Your task to perform on an android device: refresh tabs in the chrome app Image 0: 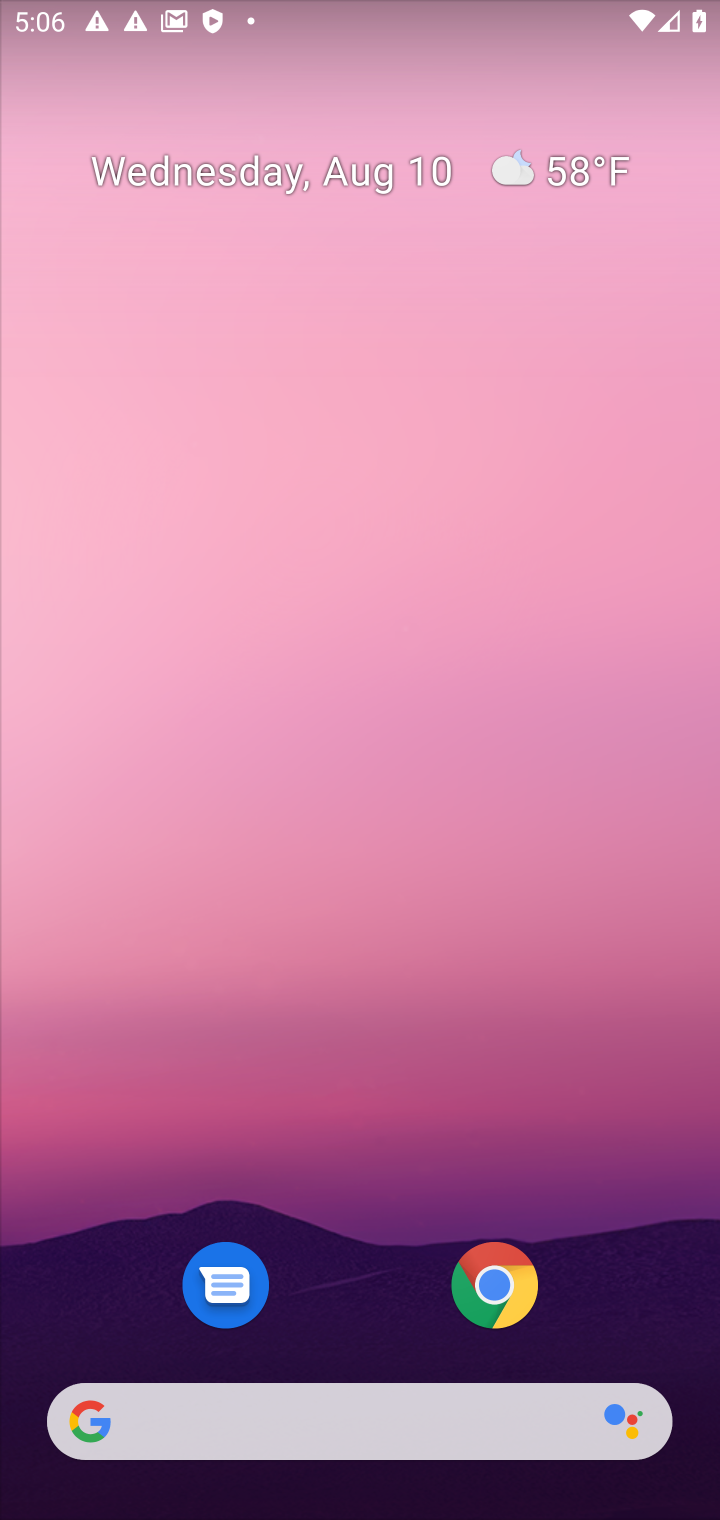
Step 0: press home button
Your task to perform on an android device: refresh tabs in the chrome app Image 1: 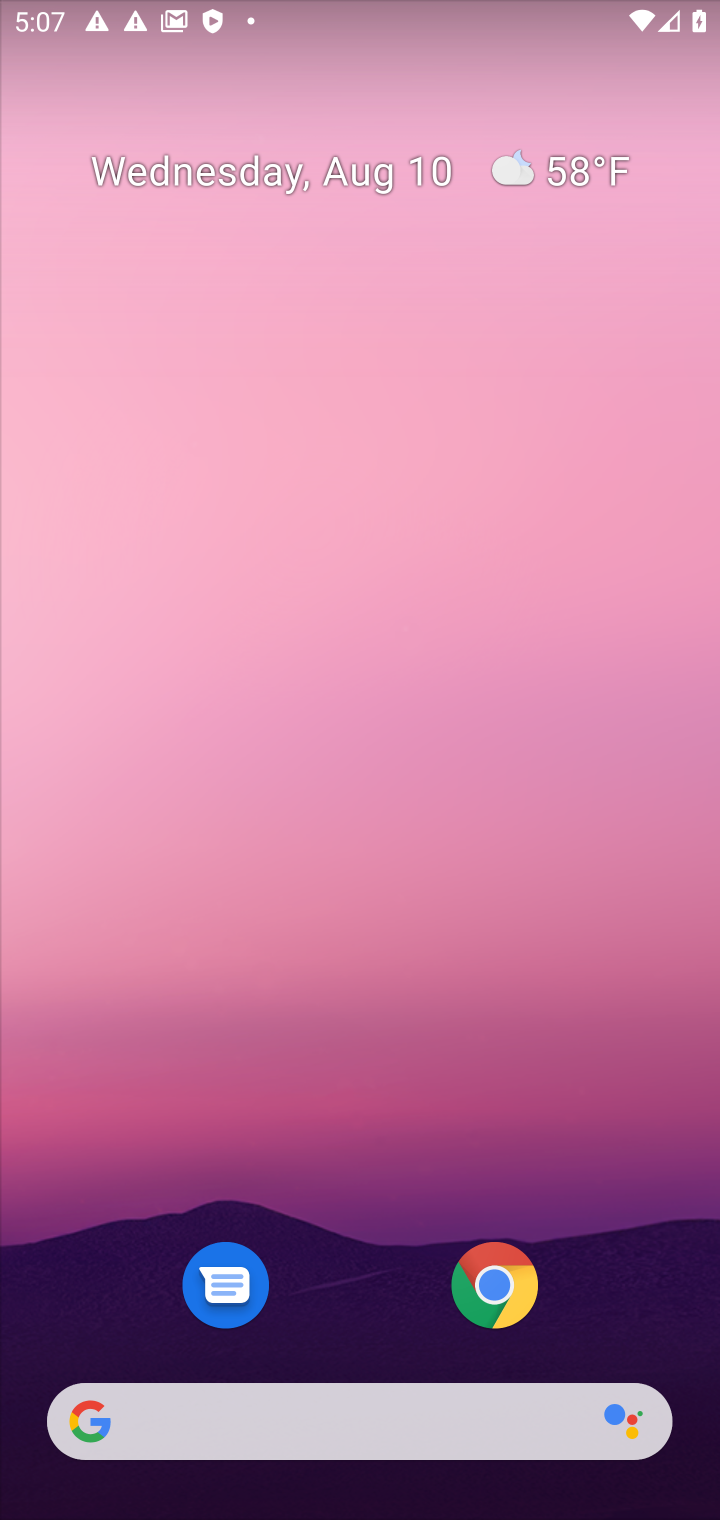
Step 1: click (538, 1294)
Your task to perform on an android device: refresh tabs in the chrome app Image 2: 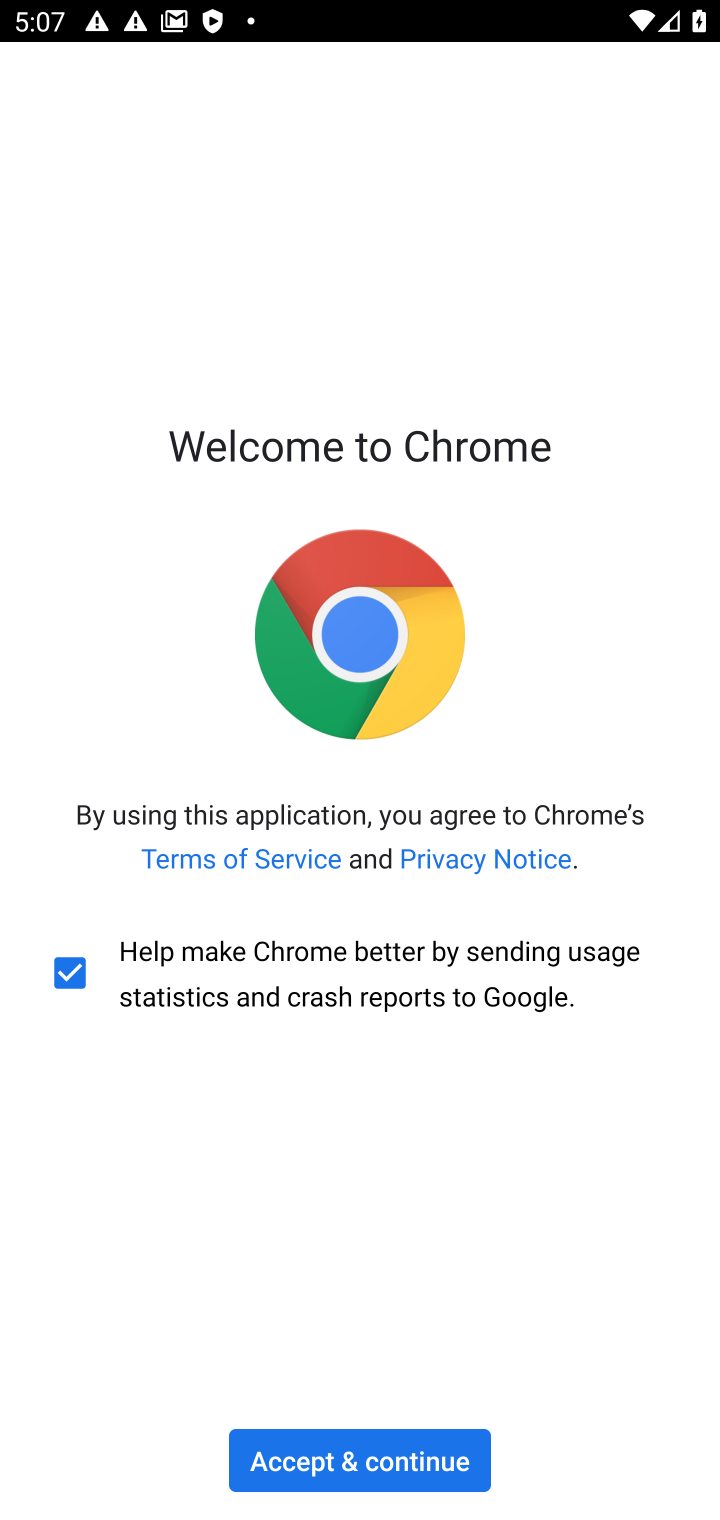
Step 2: click (348, 1462)
Your task to perform on an android device: refresh tabs in the chrome app Image 3: 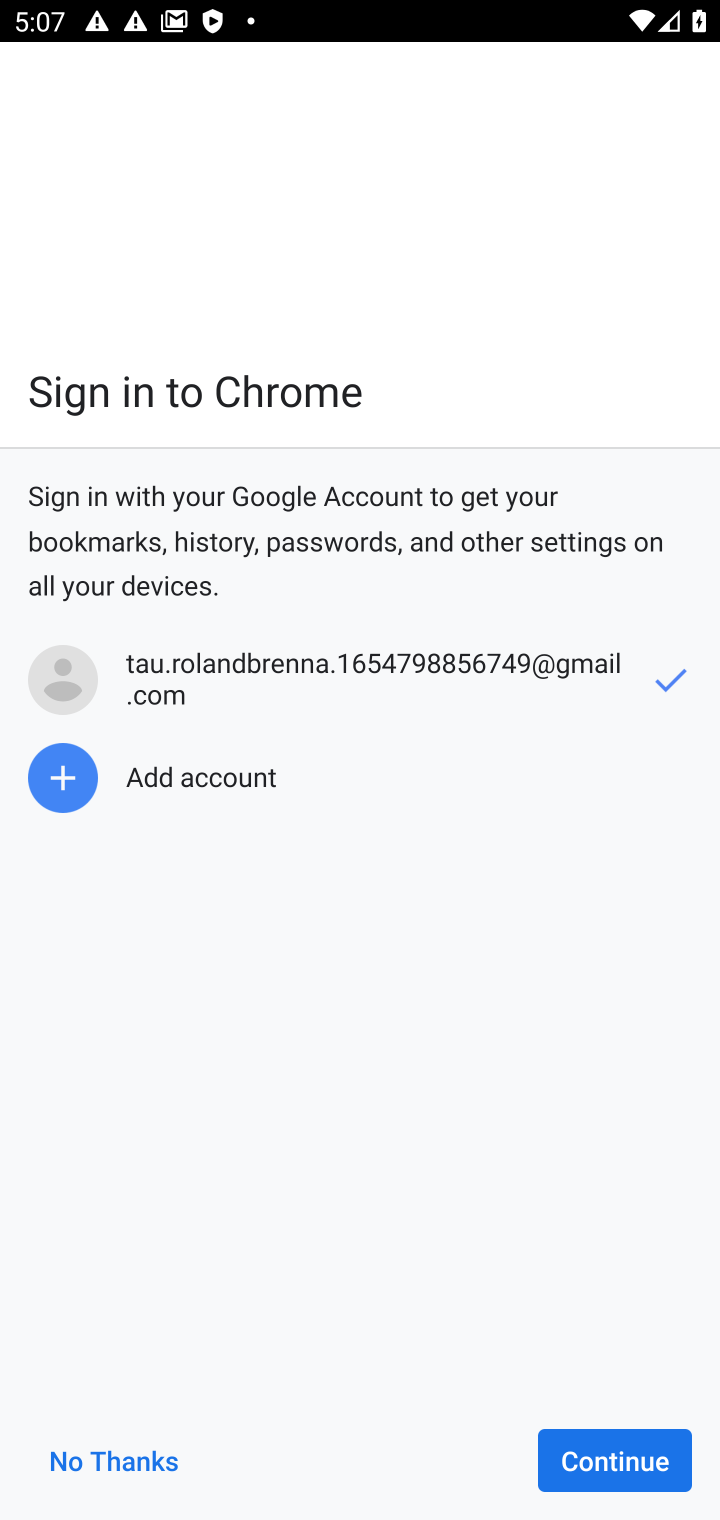
Step 3: click (650, 1479)
Your task to perform on an android device: refresh tabs in the chrome app Image 4: 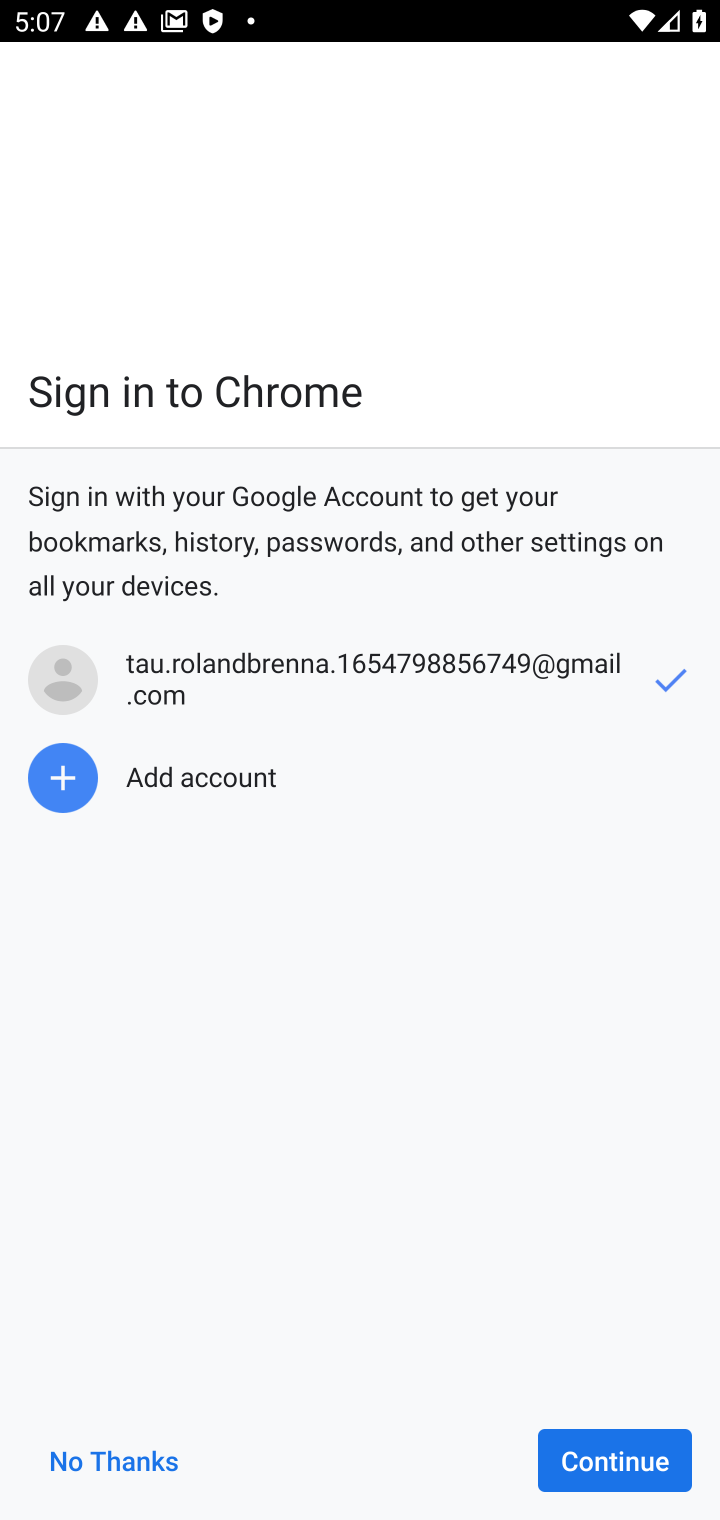
Step 4: click (650, 1479)
Your task to perform on an android device: refresh tabs in the chrome app Image 5: 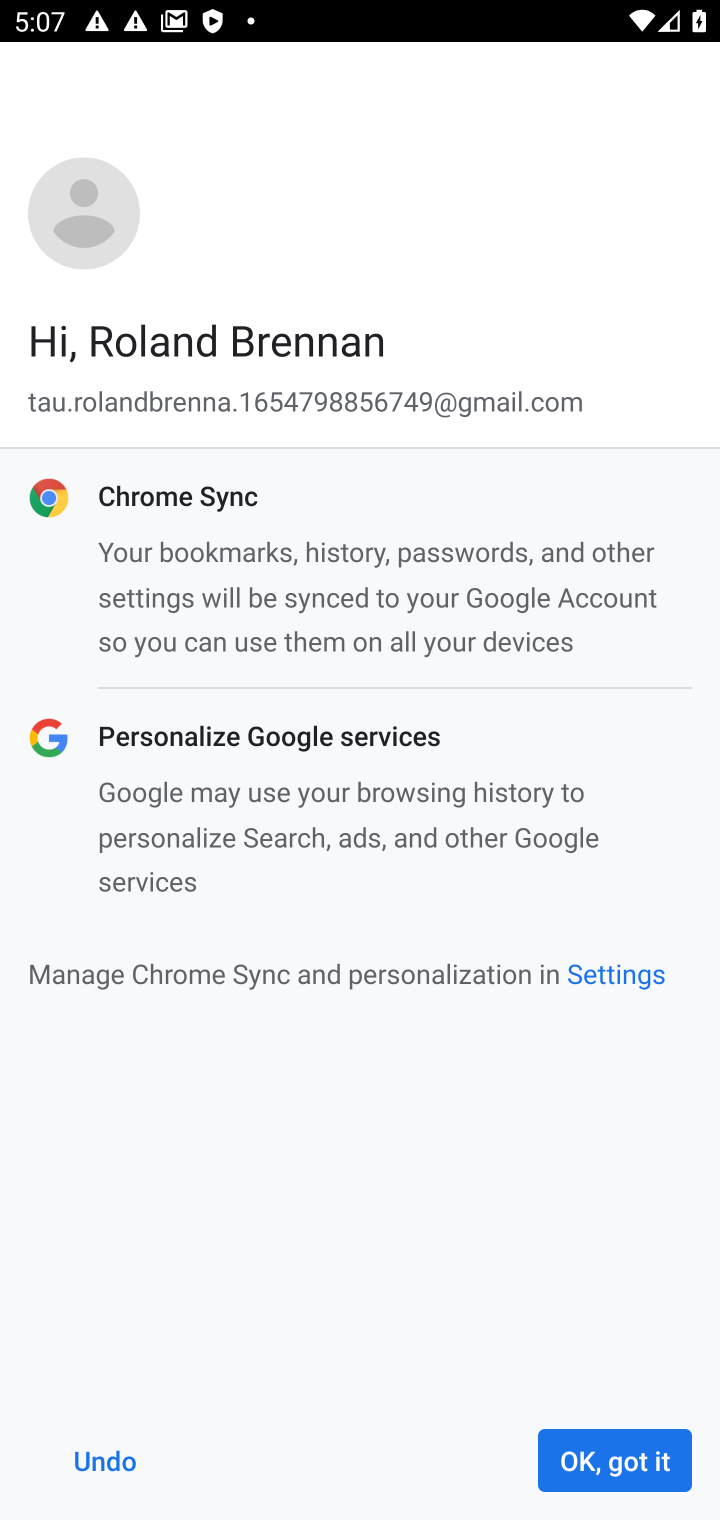
Step 5: click (650, 1479)
Your task to perform on an android device: refresh tabs in the chrome app Image 6: 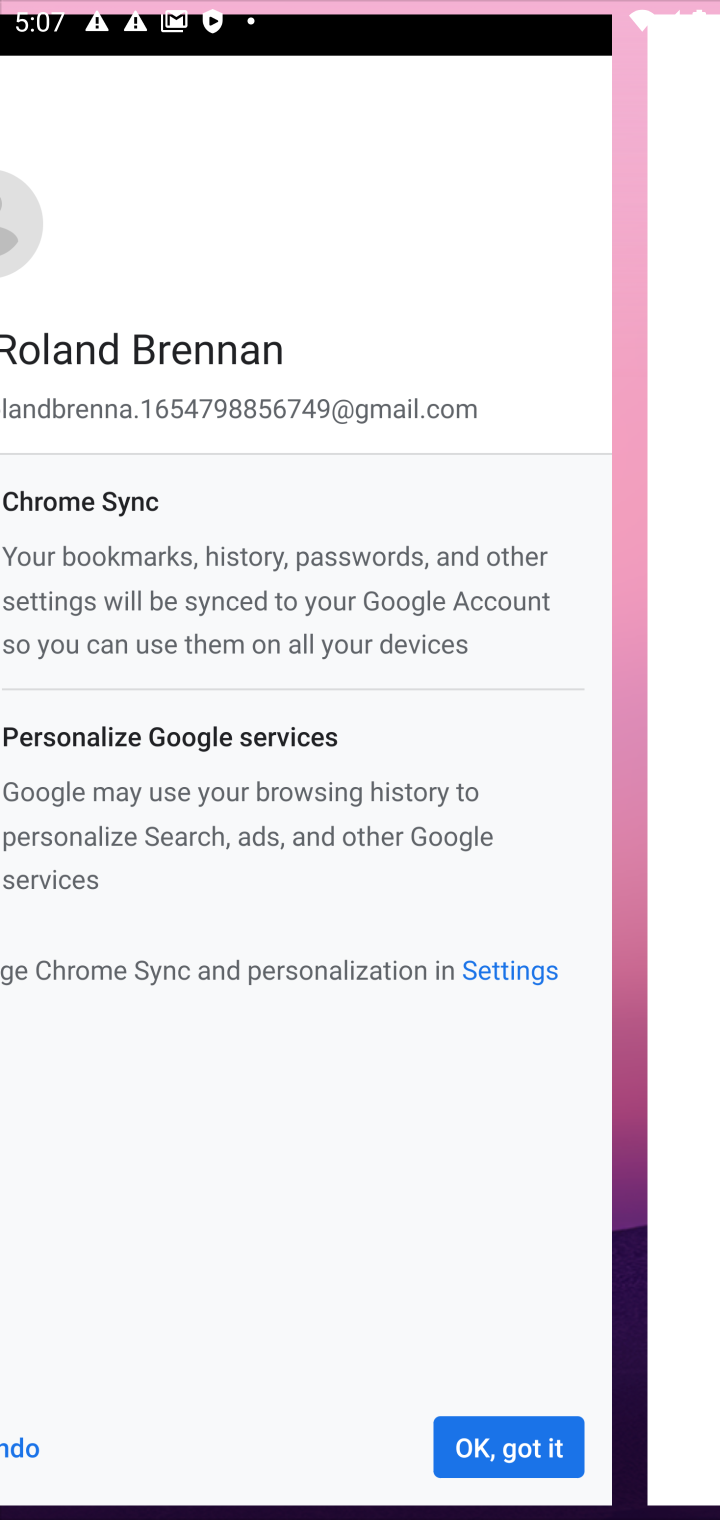
Step 6: click (650, 1479)
Your task to perform on an android device: refresh tabs in the chrome app Image 7: 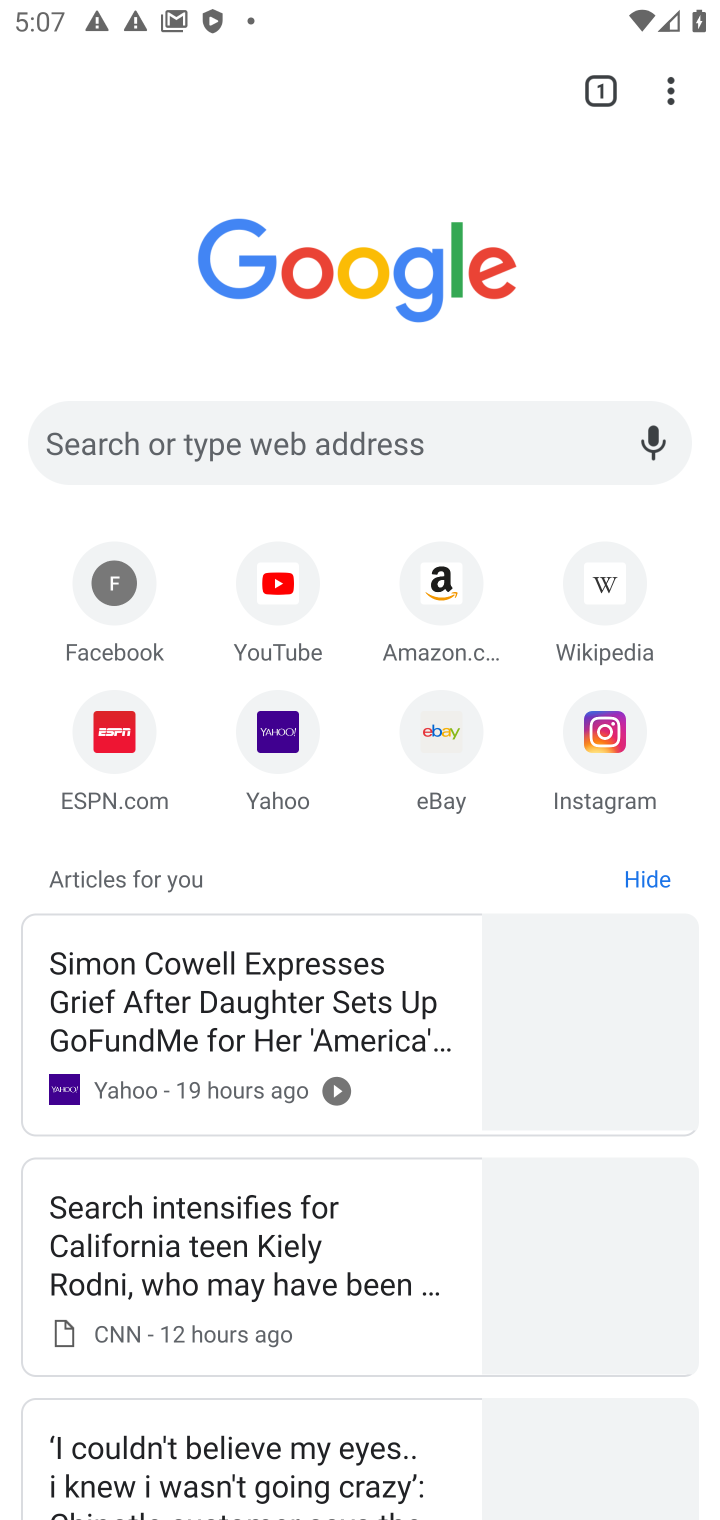
Step 7: click (693, 71)
Your task to perform on an android device: refresh tabs in the chrome app Image 8: 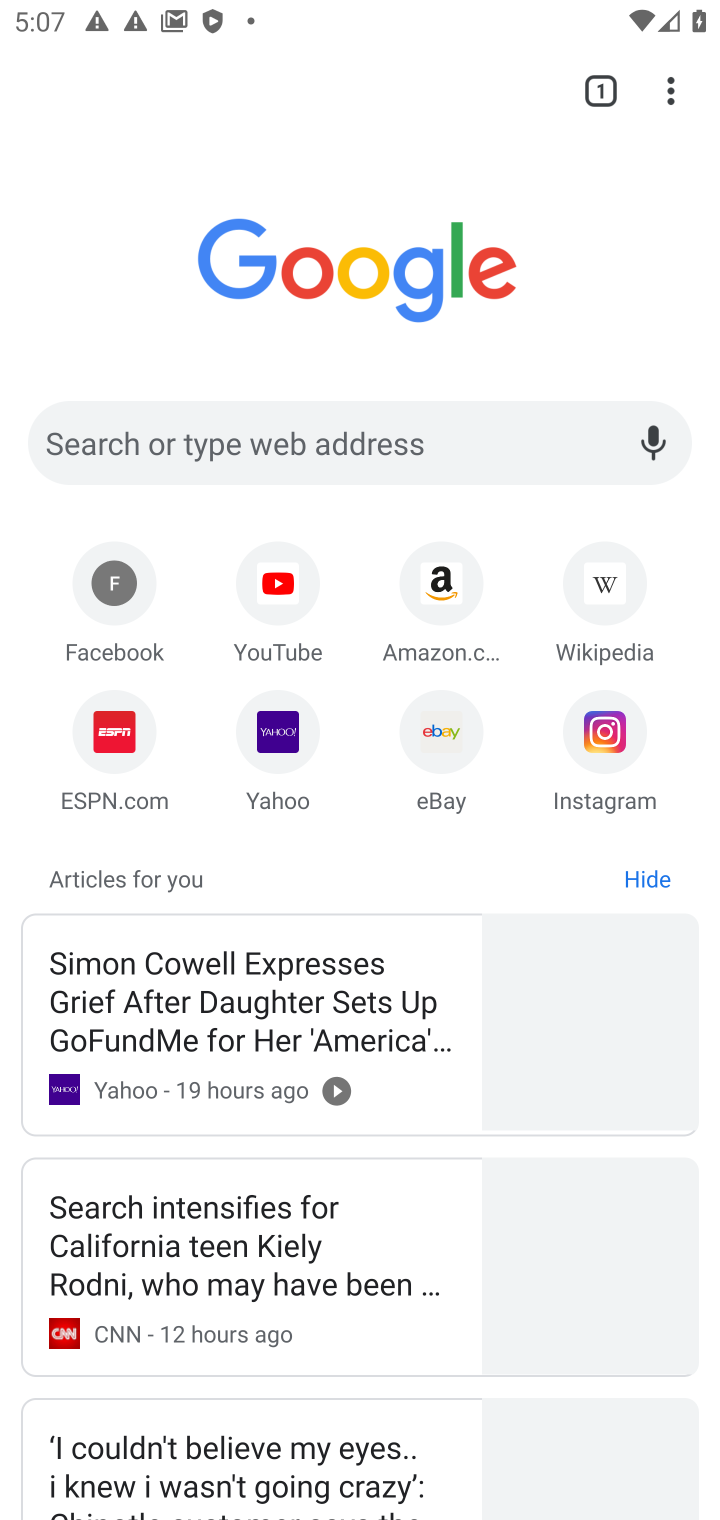
Step 8: click (671, 95)
Your task to perform on an android device: refresh tabs in the chrome app Image 9: 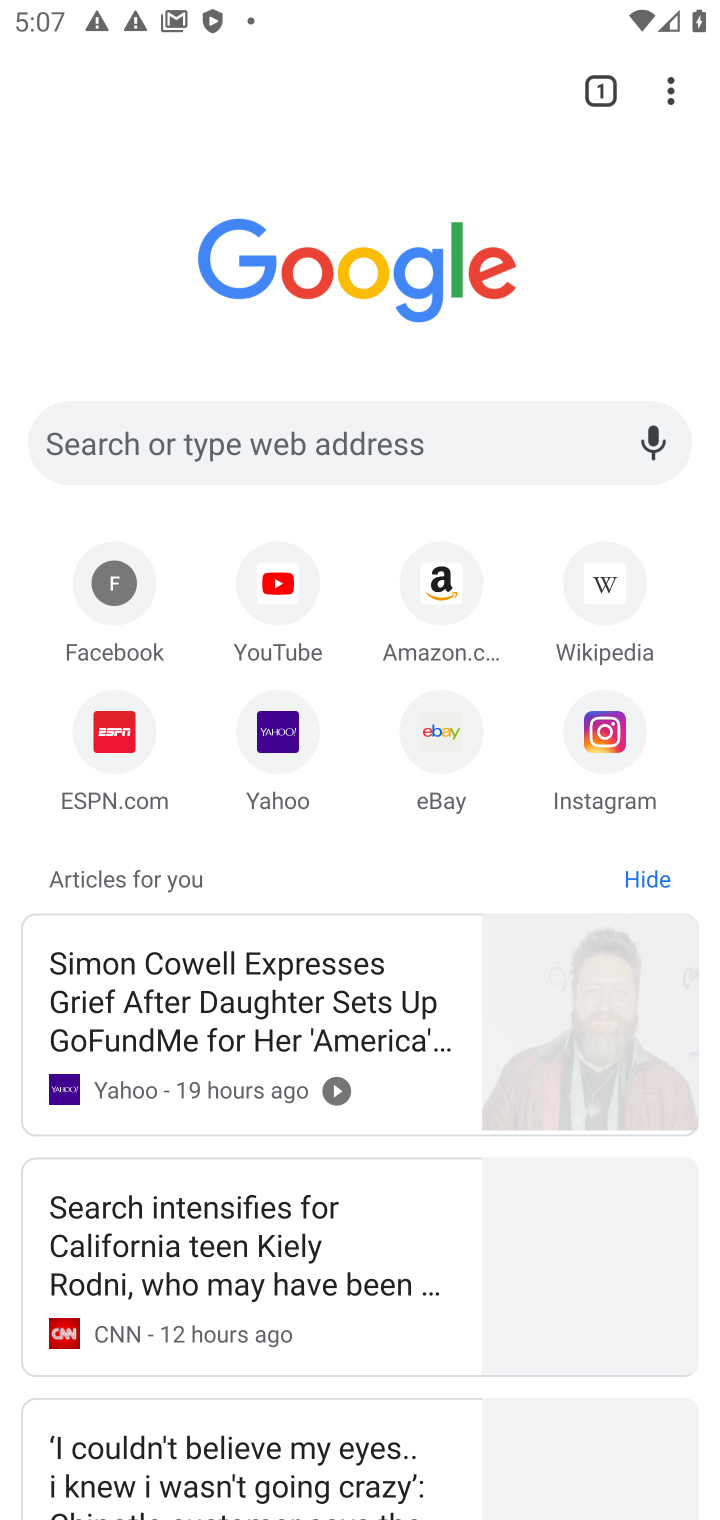
Step 9: click (671, 95)
Your task to perform on an android device: refresh tabs in the chrome app Image 10: 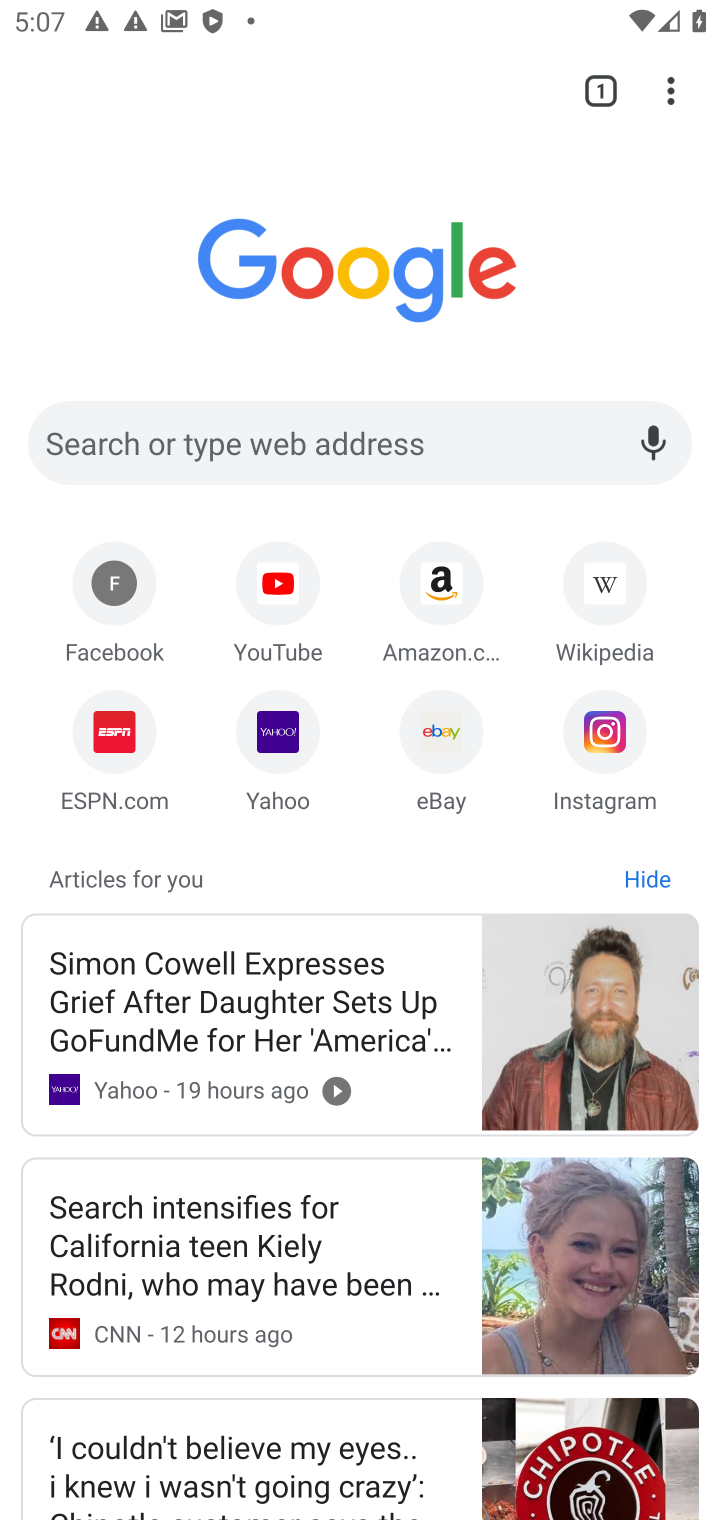
Step 10: task complete